Your task to perform on an android device: Open Maps and search for coffee Image 0: 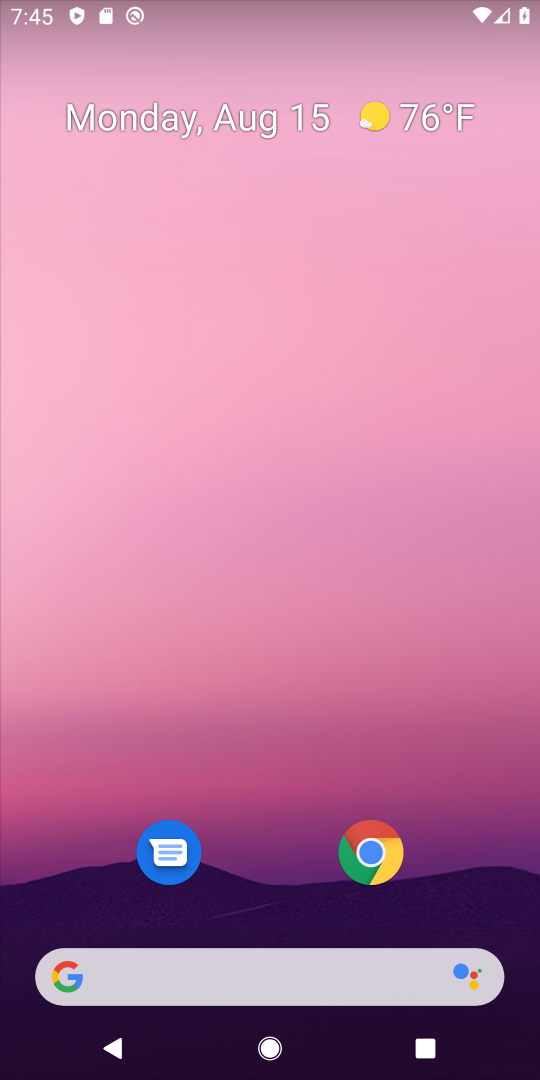
Step 0: drag from (225, 964) to (260, 215)
Your task to perform on an android device: Open Maps and search for coffee Image 1: 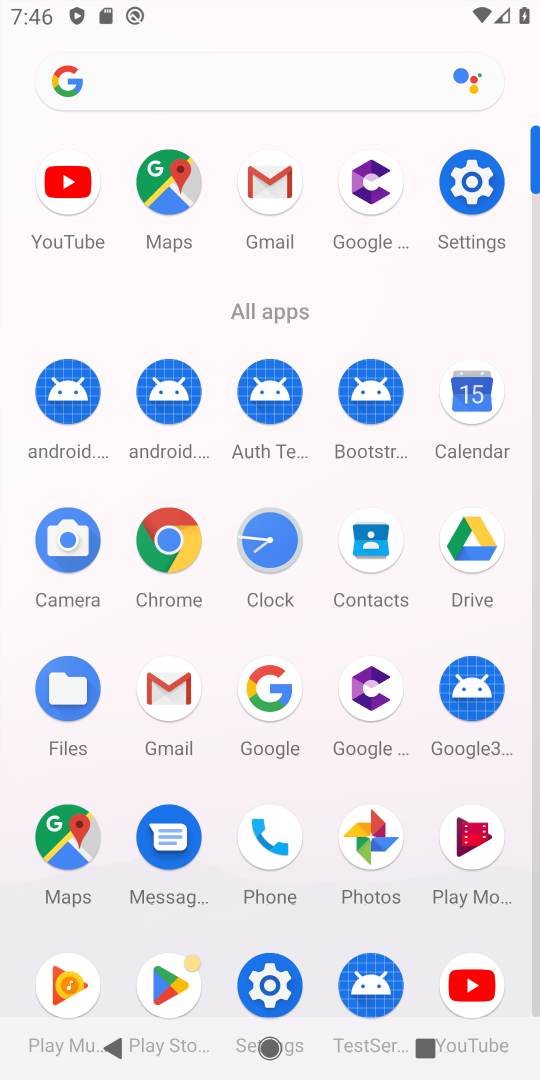
Step 1: click (167, 187)
Your task to perform on an android device: Open Maps and search for coffee Image 2: 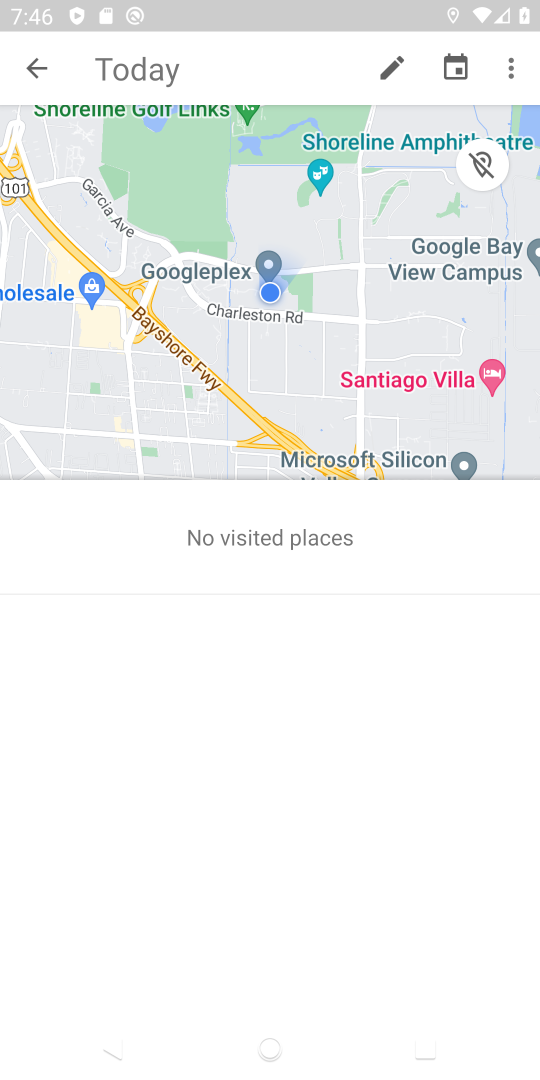
Step 2: press back button
Your task to perform on an android device: Open Maps and search for coffee Image 3: 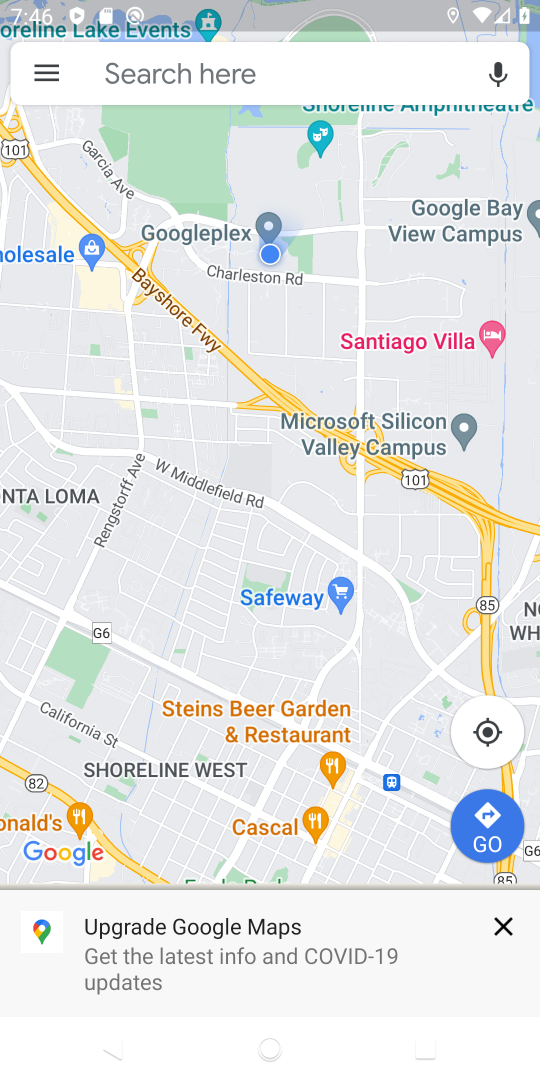
Step 3: click (257, 66)
Your task to perform on an android device: Open Maps and search for coffee Image 4: 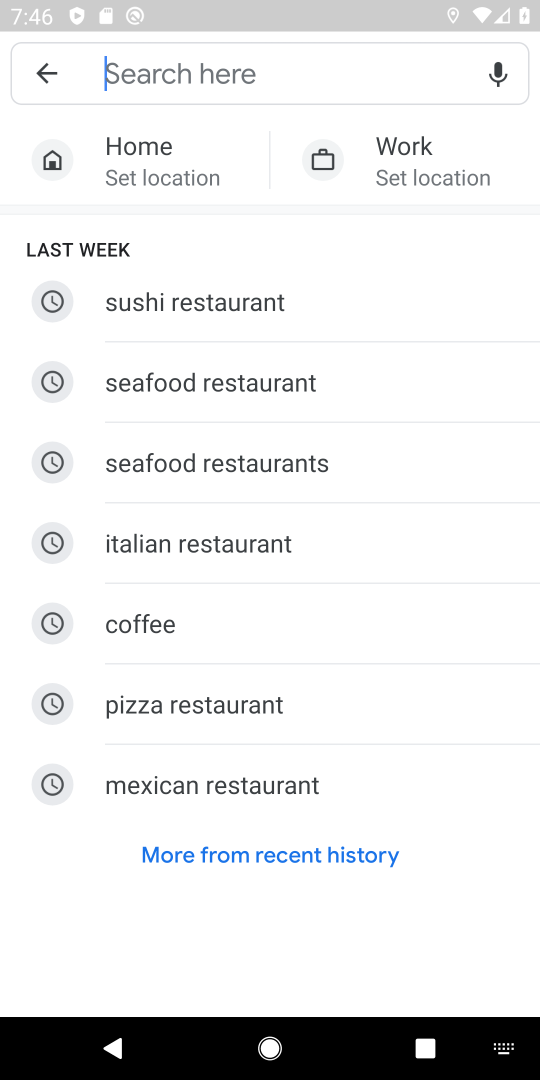
Step 4: type "coffee"
Your task to perform on an android device: Open Maps and search for coffee Image 5: 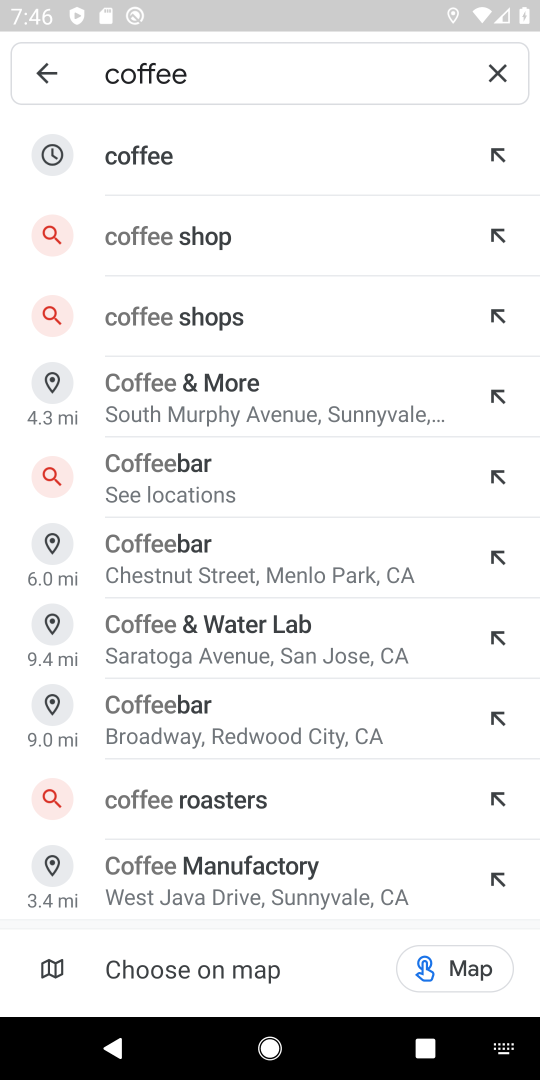
Step 5: click (153, 161)
Your task to perform on an android device: Open Maps and search for coffee Image 6: 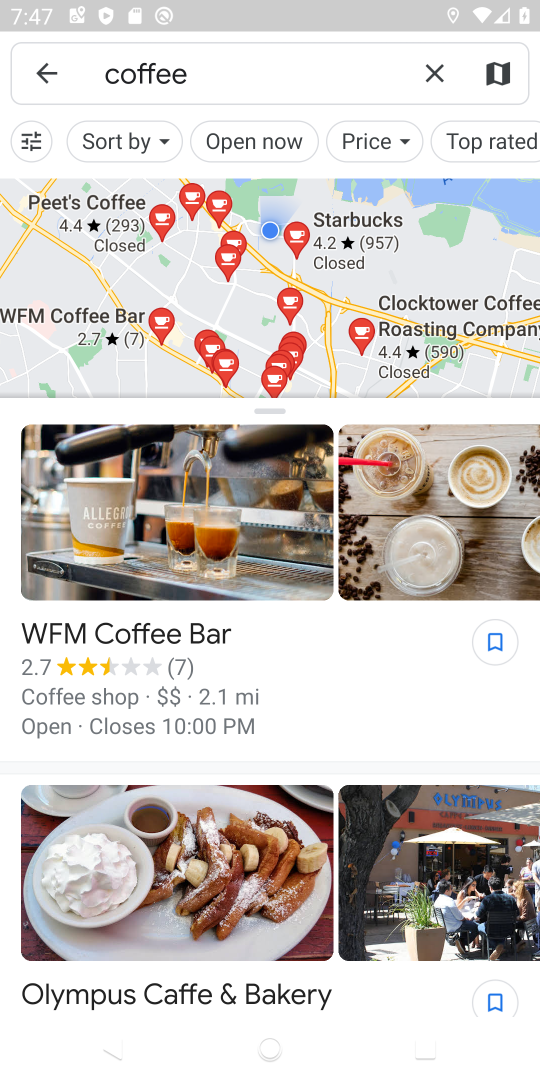
Step 6: task complete